Your task to perform on an android device: toggle show notifications on the lock screen Image 0: 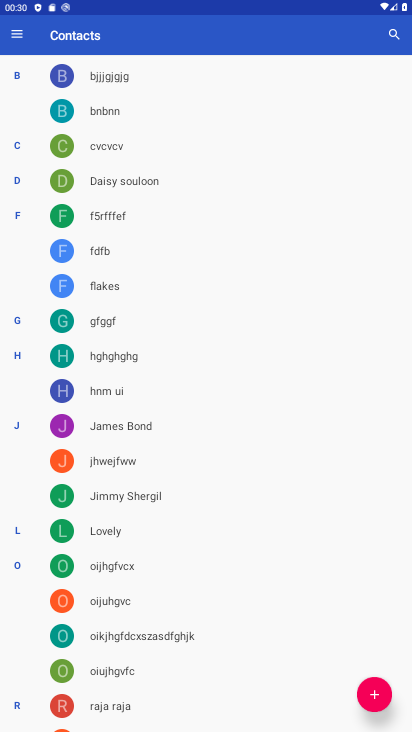
Step 0: press home button
Your task to perform on an android device: toggle show notifications on the lock screen Image 1: 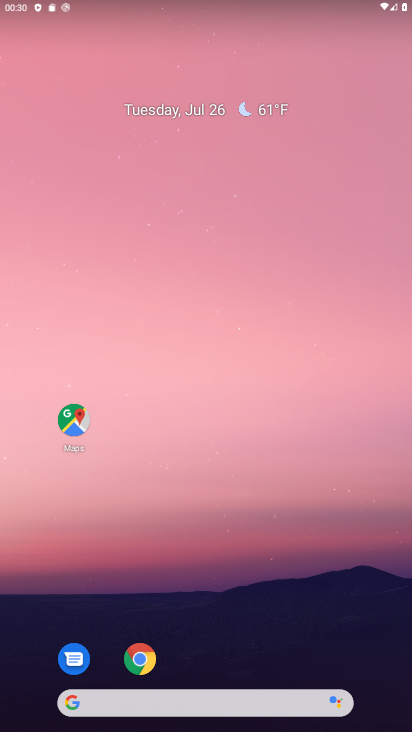
Step 1: drag from (279, 644) to (204, 84)
Your task to perform on an android device: toggle show notifications on the lock screen Image 2: 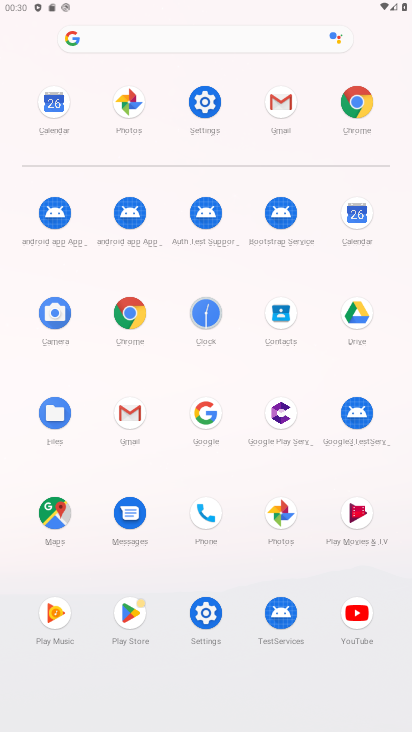
Step 2: click (203, 109)
Your task to perform on an android device: toggle show notifications on the lock screen Image 3: 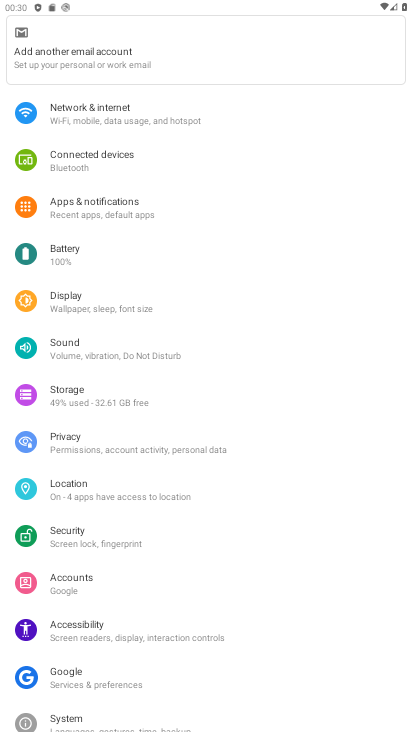
Step 3: click (116, 209)
Your task to perform on an android device: toggle show notifications on the lock screen Image 4: 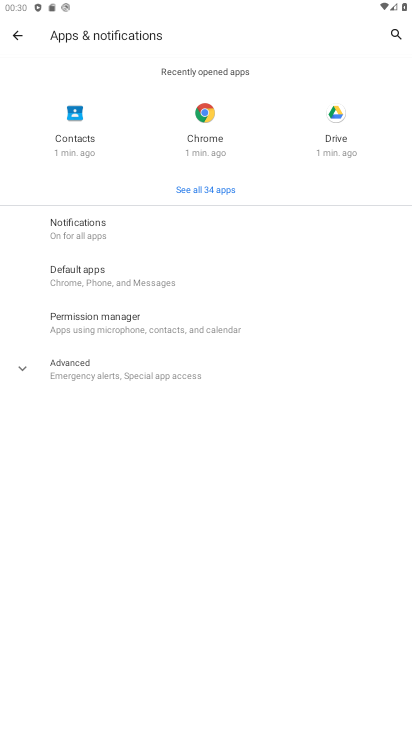
Step 4: click (75, 232)
Your task to perform on an android device: toggle show notifications on the lock screen Image 5: 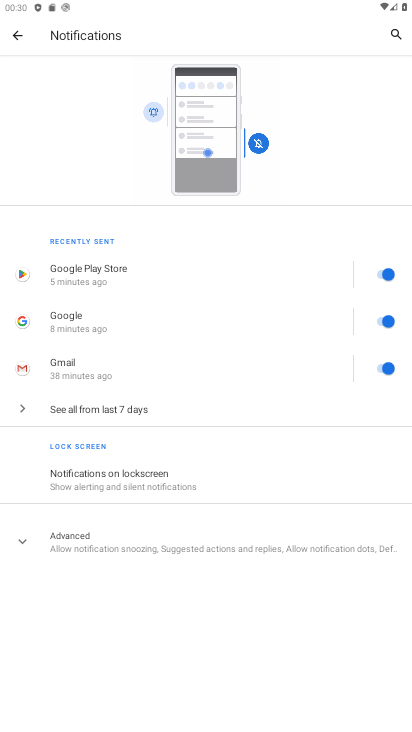
Step 5: click (137, 484)
Your task to perform on an android device: toggle show notifications on the lock screen Image 6: 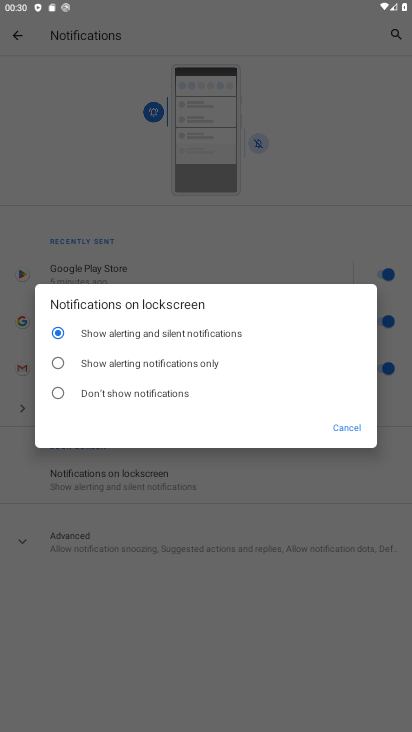
Step 6: click (160, 367)
Your task to perform on an android device: toggle show notifications on the lock screen Image 7: 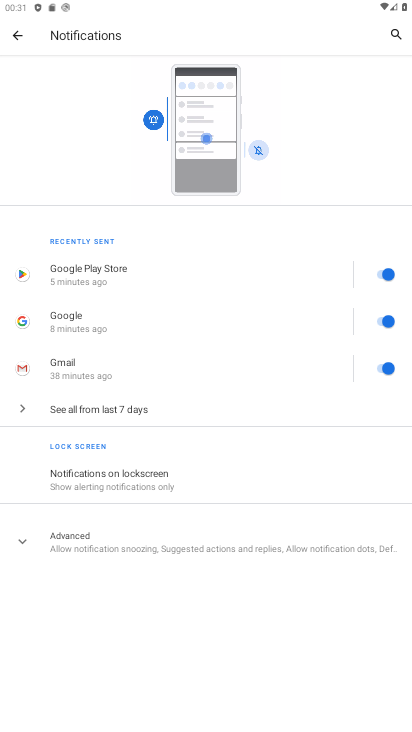
Step 7: task complete